Your task to perform on an android device: Clear the cart on target.com. Search for logitech g910 on target.com, select the first entry, and add it to the cart. Image 0: 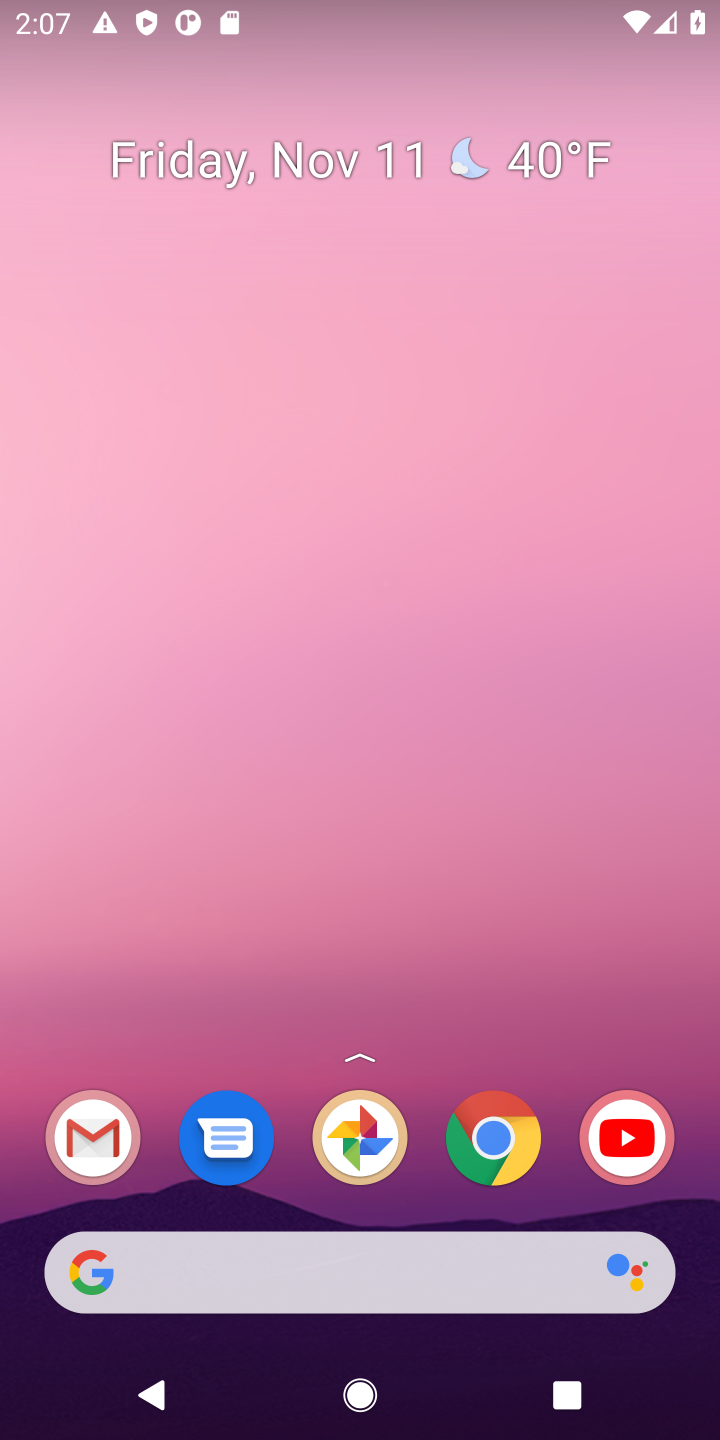
Step 0: click (497, 1122)
Your task to perform on an android device: Clear the cart on target.com. Search for logitech g910 on target.com, select the first entry, and add it to the cart. Image 1: 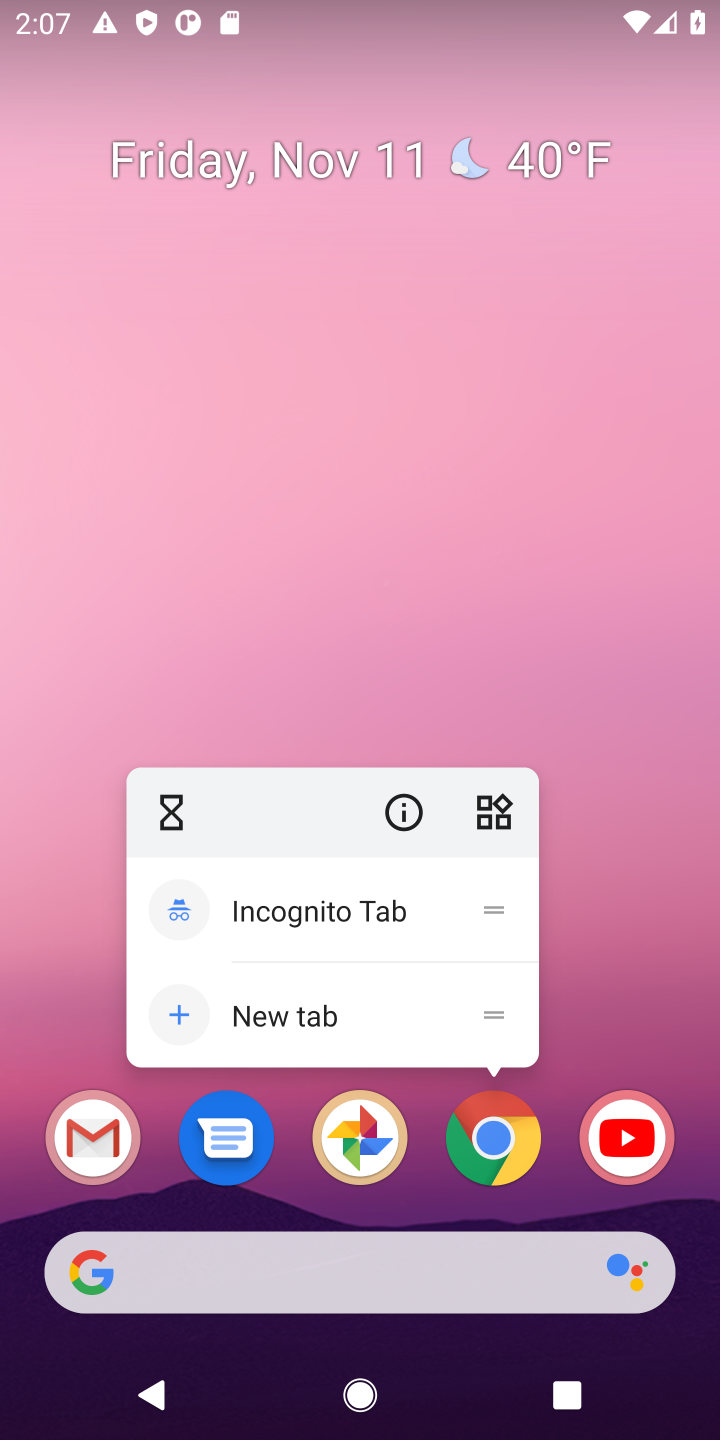
Step 1: click (497, 1122)
Your task to perform on an android device: Clear the cart on target.com. Search for logitech g910 on target.com, select the first entry, and add it to the cart. Image 2: 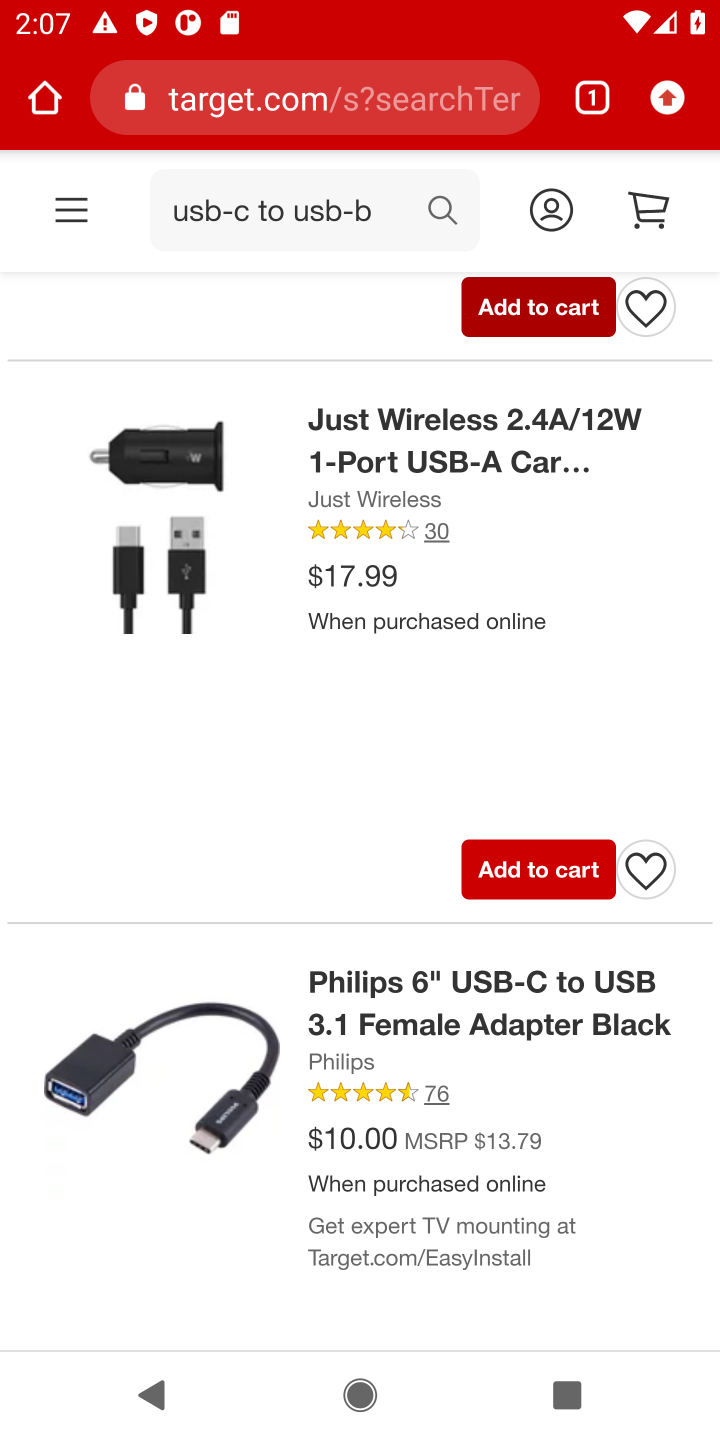
Step 2: click (436, 212)
Your task to perform on an android device: Clear the cart on target.com. Search for logitech g910 on target.com, select the first entry, and add it to the cart. Image 3: 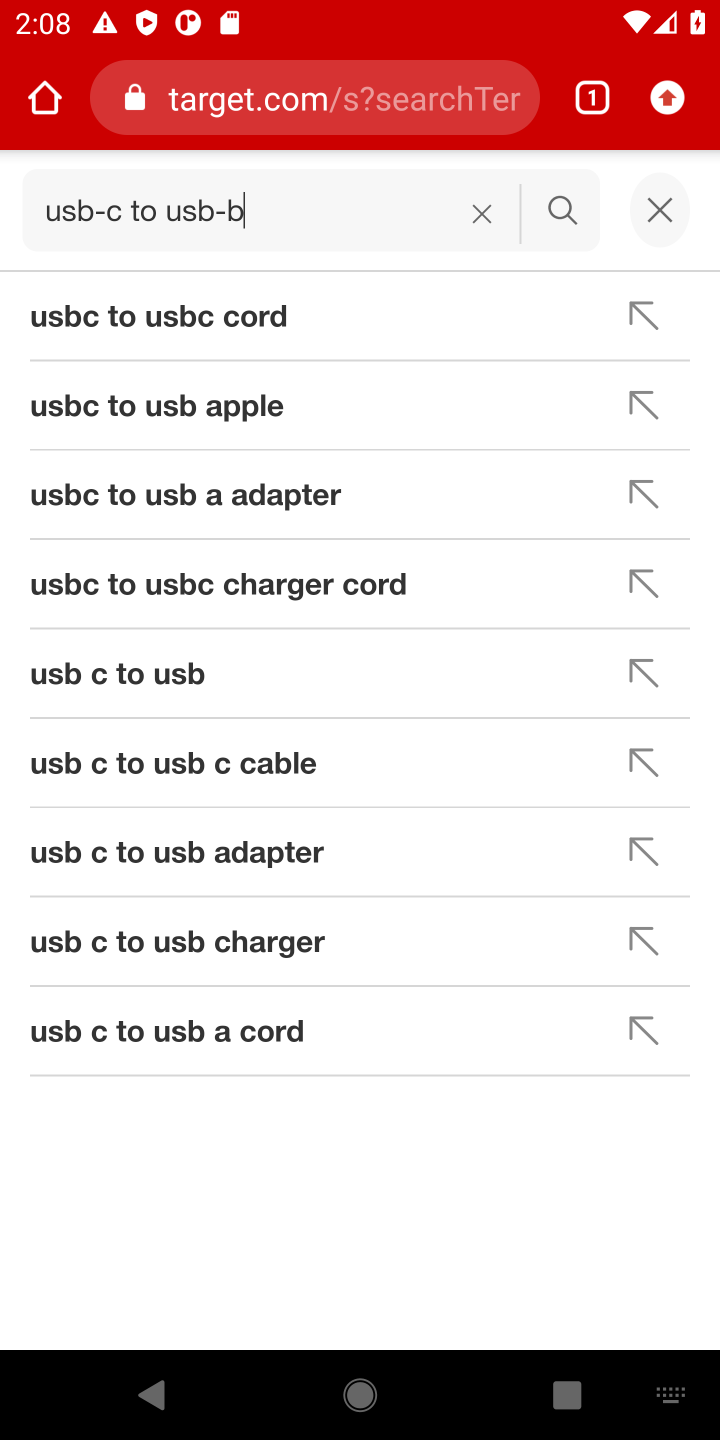
Step 3: click (487, 218)
Your task to perform on an android device: Clear the cart on target.com. Search for logitech g910 on target.com, select the first entry, and add it to the cart. Image 4: 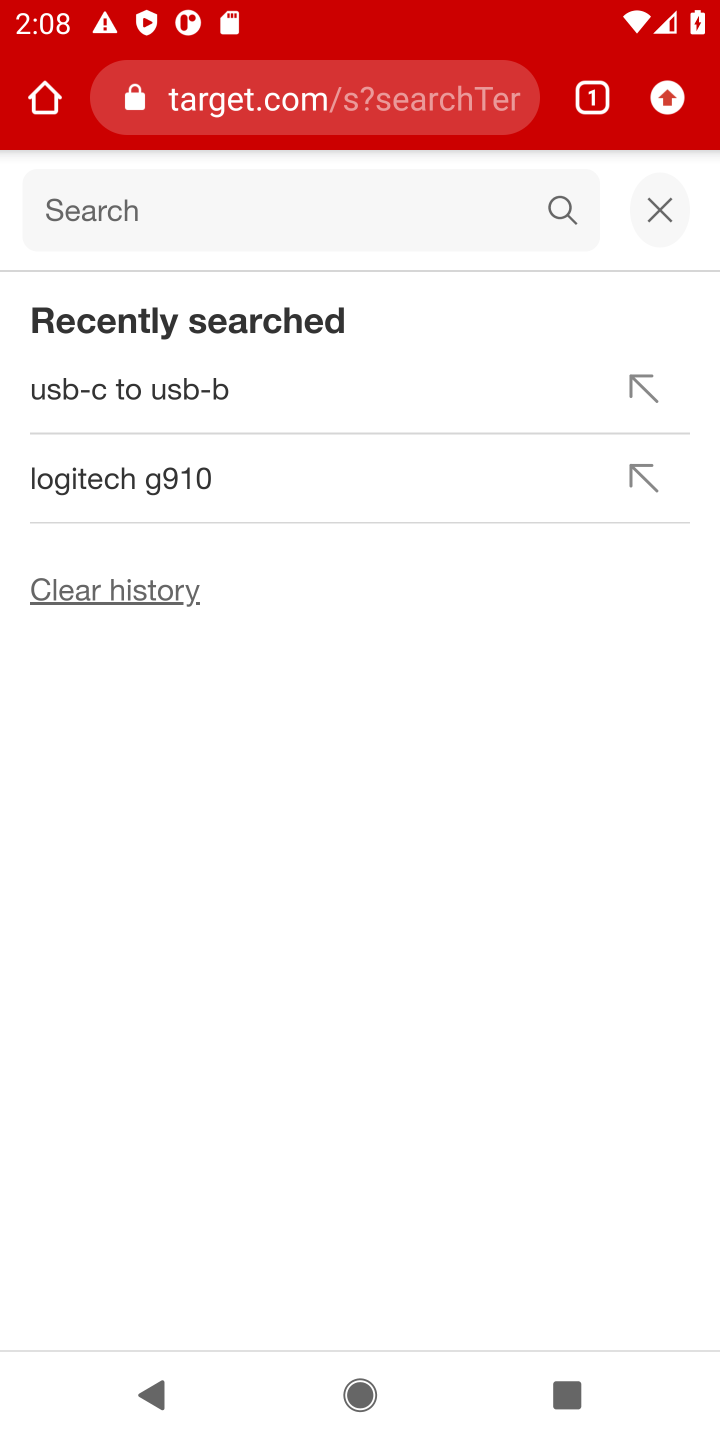
Step 4: press enter
Your task to perform on an android device: Clear the cart on target.com. Search for logitech g910 on target.com, select the first entry, and add it to the cart. Image 5: 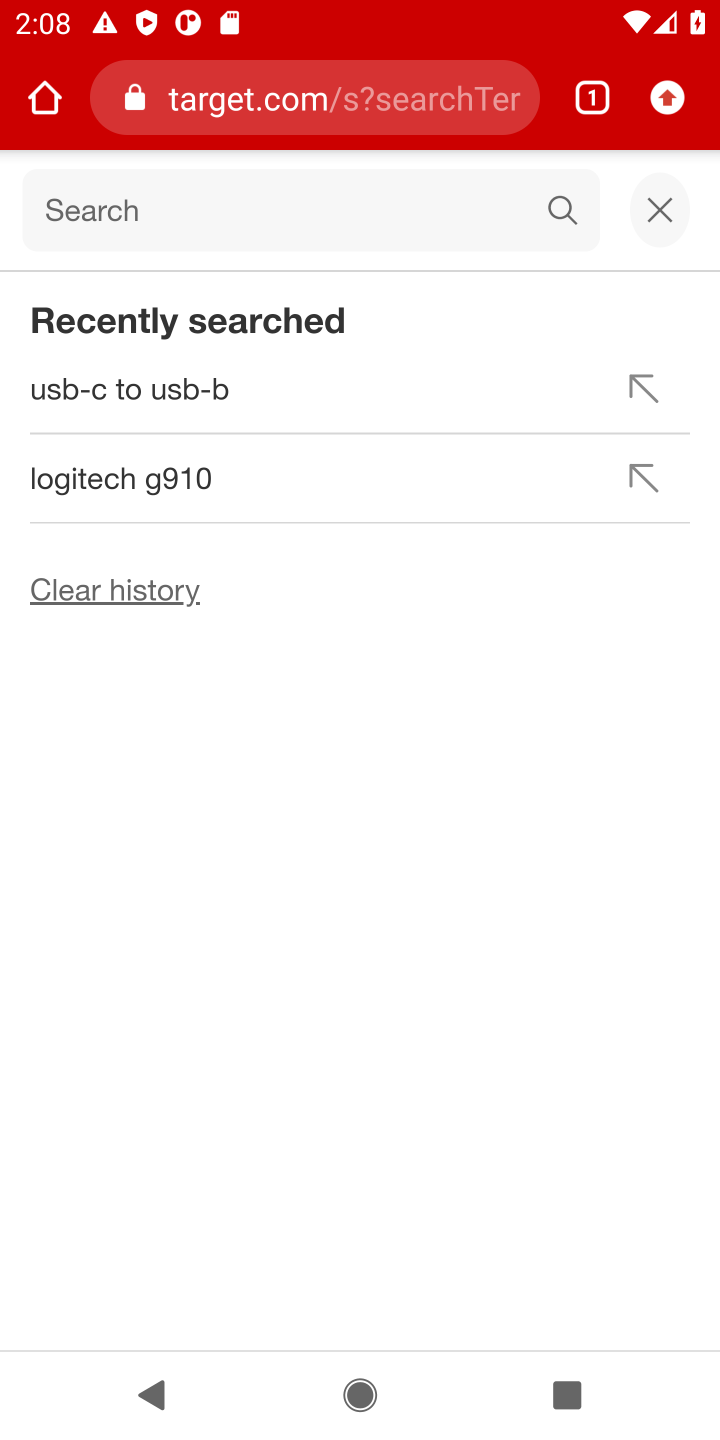
Step 5: type "logitech g910"
Your task to perform on an android device: Clear the cart on target.com. Search for logitech g910 on target.com, select the first entry, and add it to the cart. Image 6: 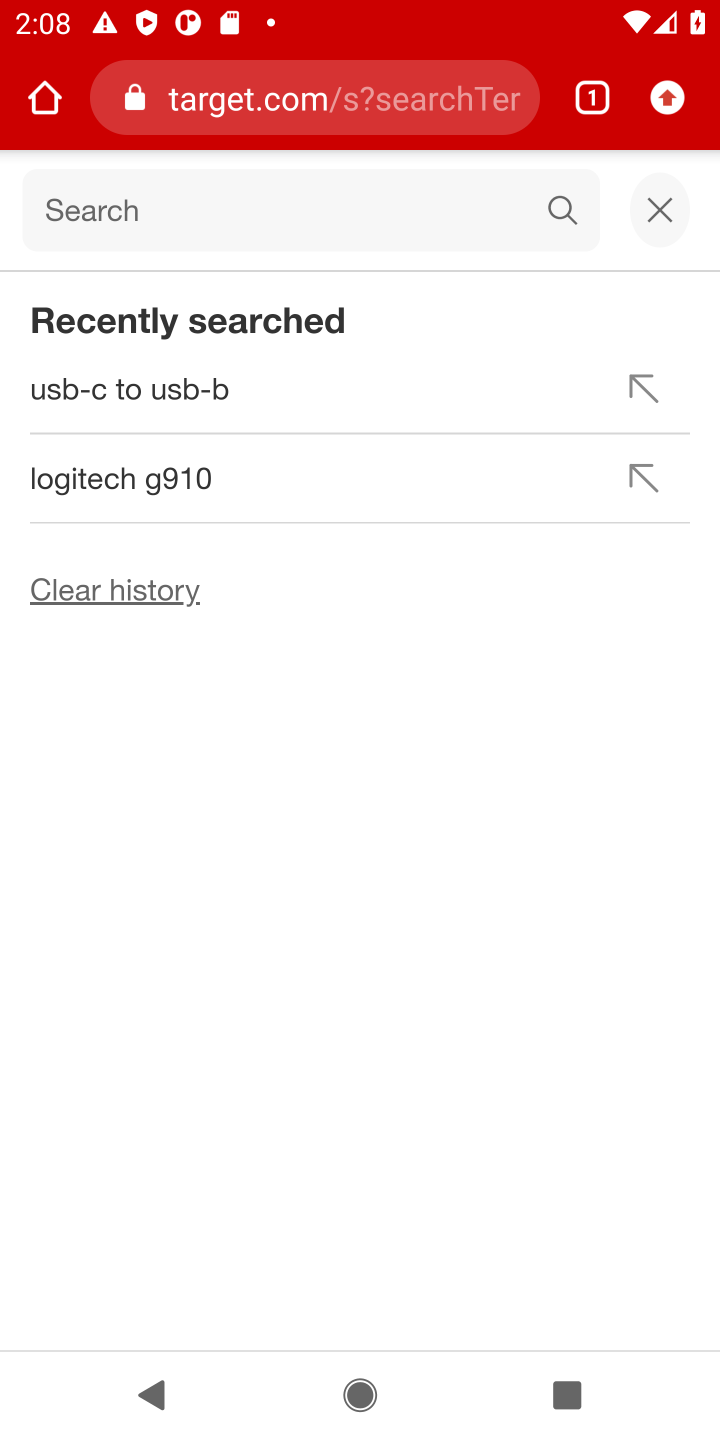
Step 6: type "logitech g910"
Your task to perform on an android device: Clear the cart on target.com. Search for logitech g910 on target.com, select the first entry, and add it to the cart. Image 7: 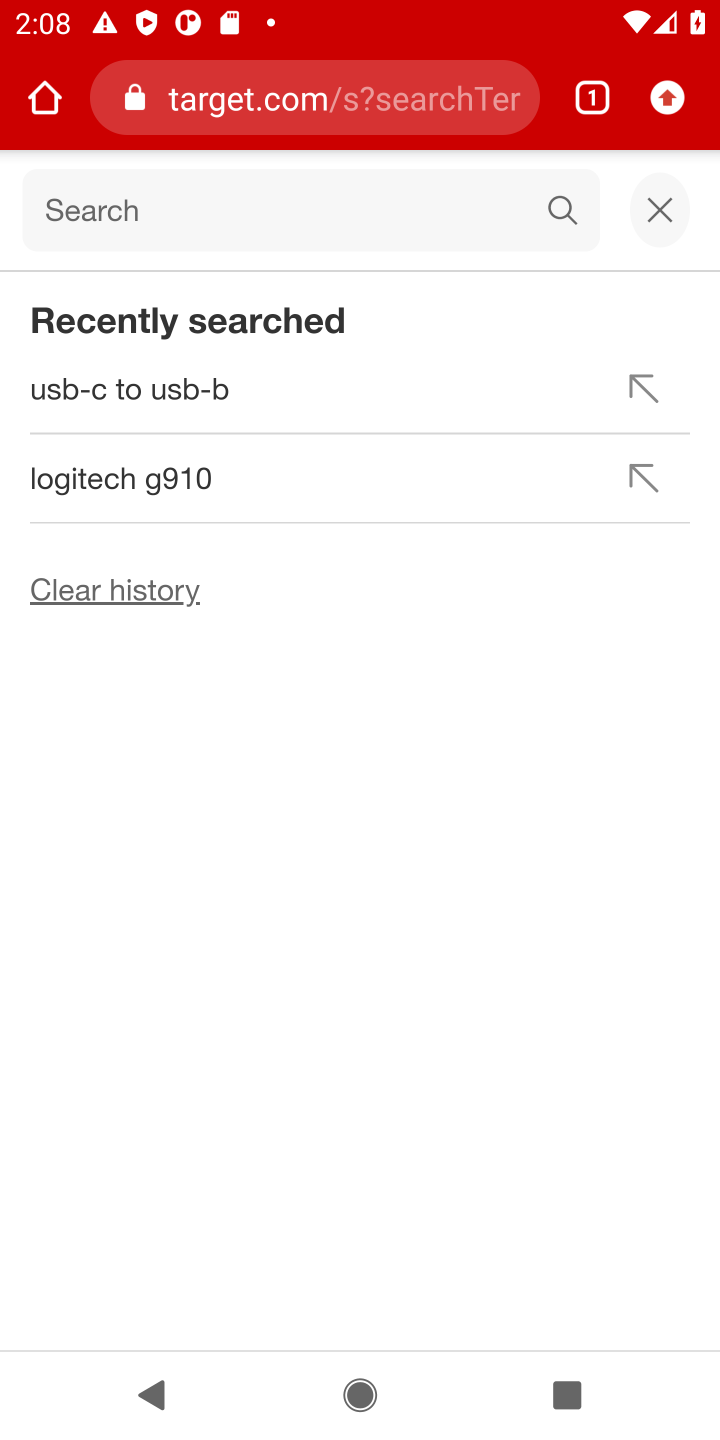
Step 7: click (546, 196)
Your task to perform on an android device: Clear the cart on target.com. Search for logitech g910 on target.com, select the first entry, and add it to the cart. Image 8: 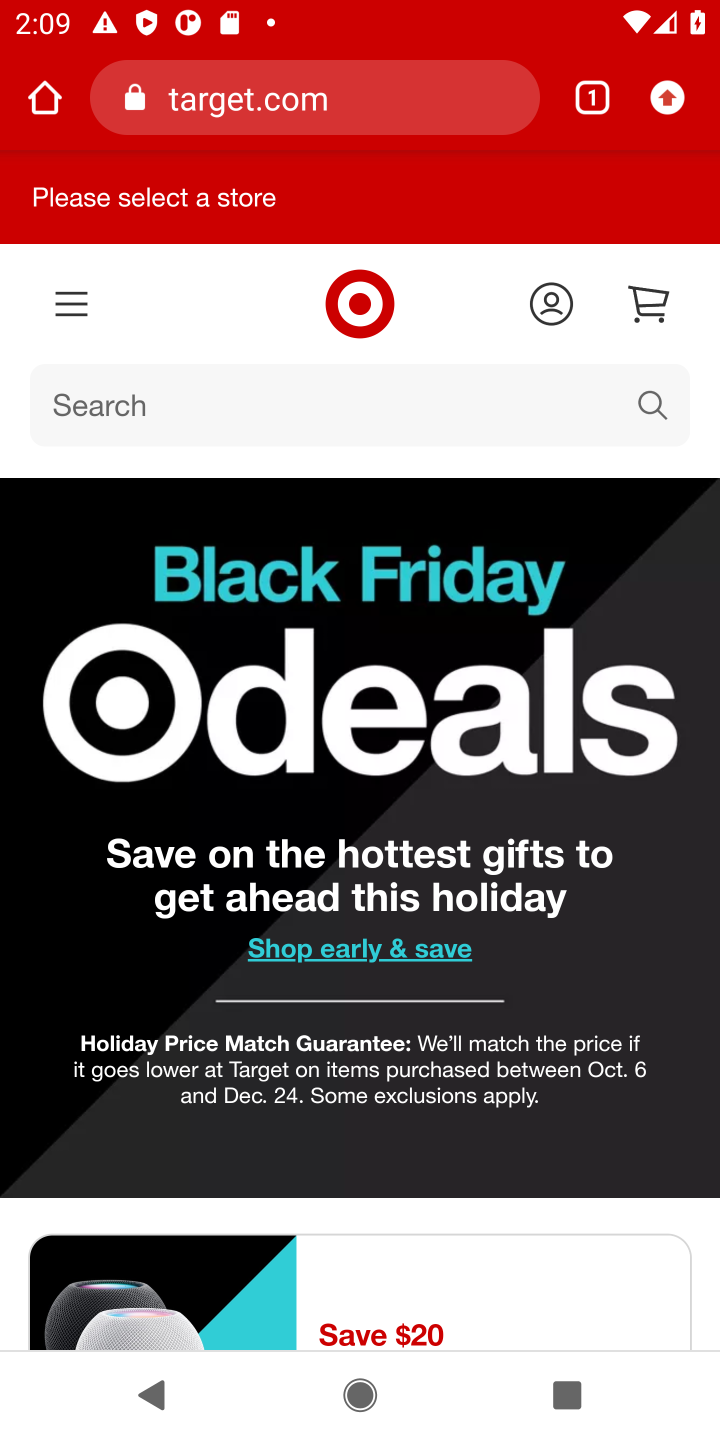
Step 8: click (657, 390)
Your task to perform on an android device: Clear the cart on target.com. Search for logitech g910 on target.com, select the first entry, and add it to the cart. Image 9: 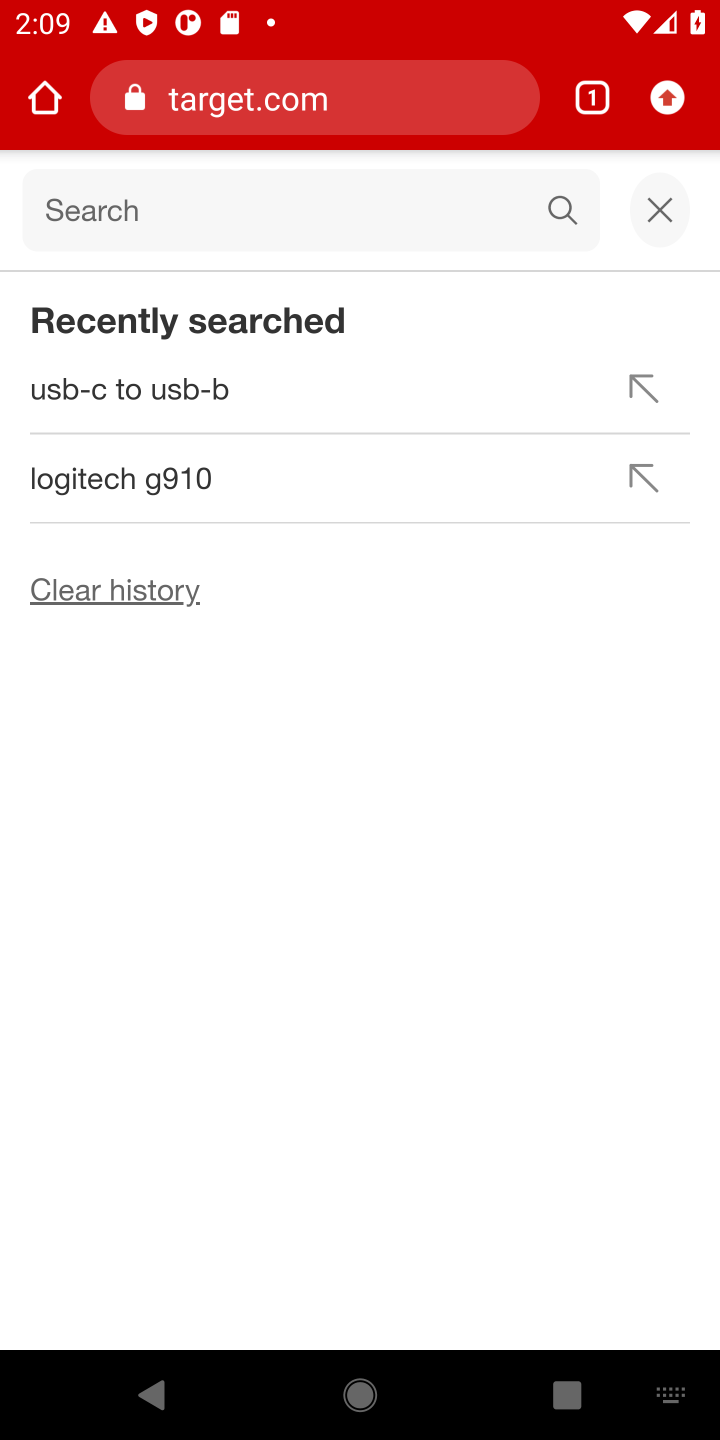
Step 9: press enter
Your task to perform on an android device: Clear the cart on target.com. Search for logitech g910 on target.com, select the first entry, and add it to the cart. Image 10: 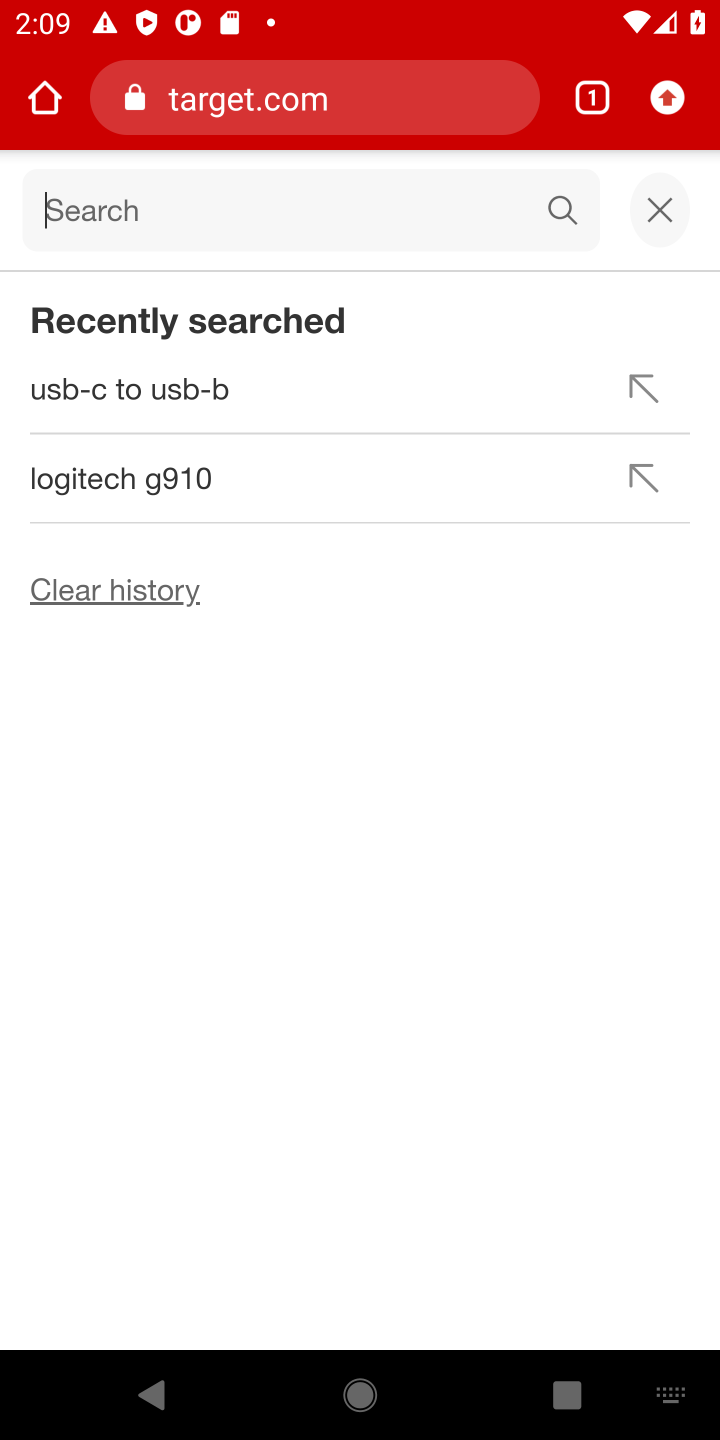
Step 10: type "logitech g910"
Your task to perform on an android device: Clear the cart on target.com. Search for logitech g910 on target.com, select the first entry, and add it to the cart. Image 11: 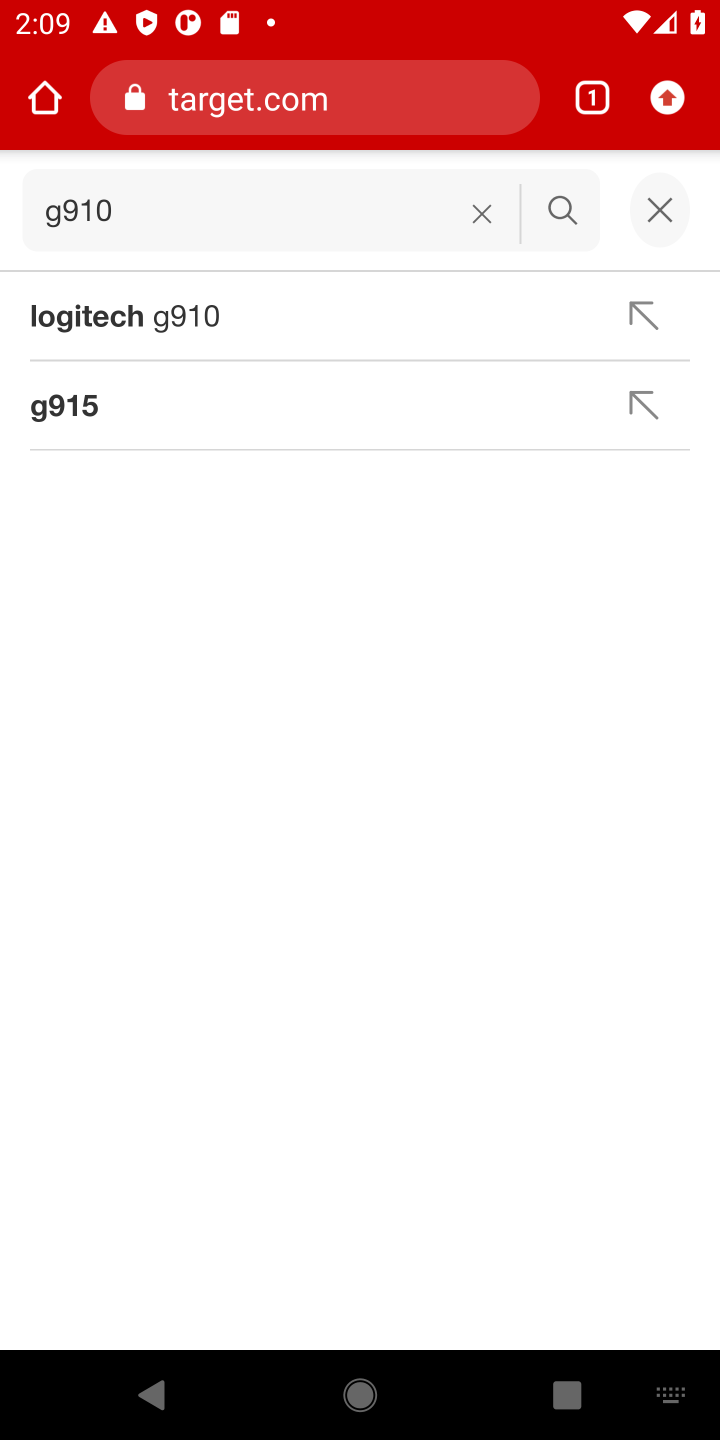
Step 11: click (153, 310)
Your task to perform on an android device: Clear the cart on target.com. Search for logitech g910 on target.com, select the first entry, and add it to the cart. Image 12: 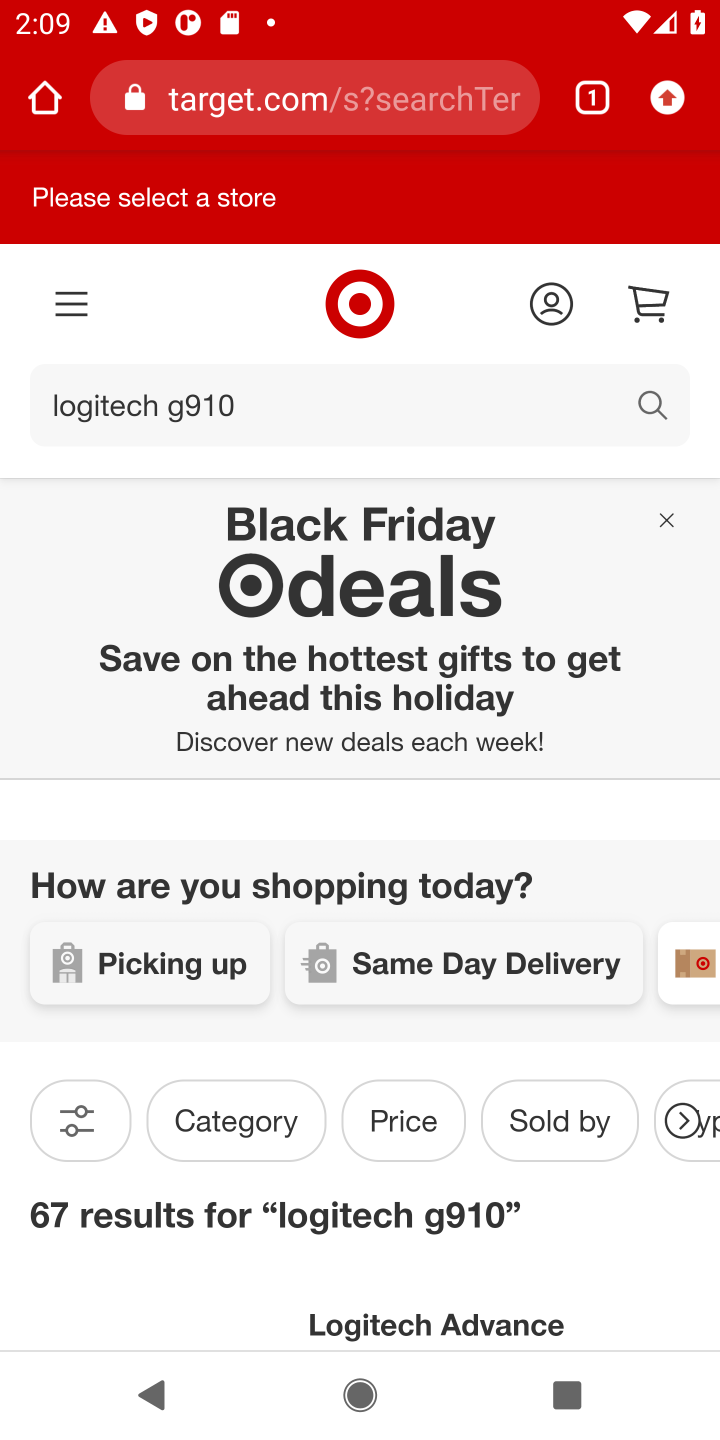
Step 12: drag from (414, 1011) to (324, 331)
Your task to perform on an android device: Clear the cart on target.com. Search for logitech g910 on target.com, select the first entry, and add it to the cart. Image 13: 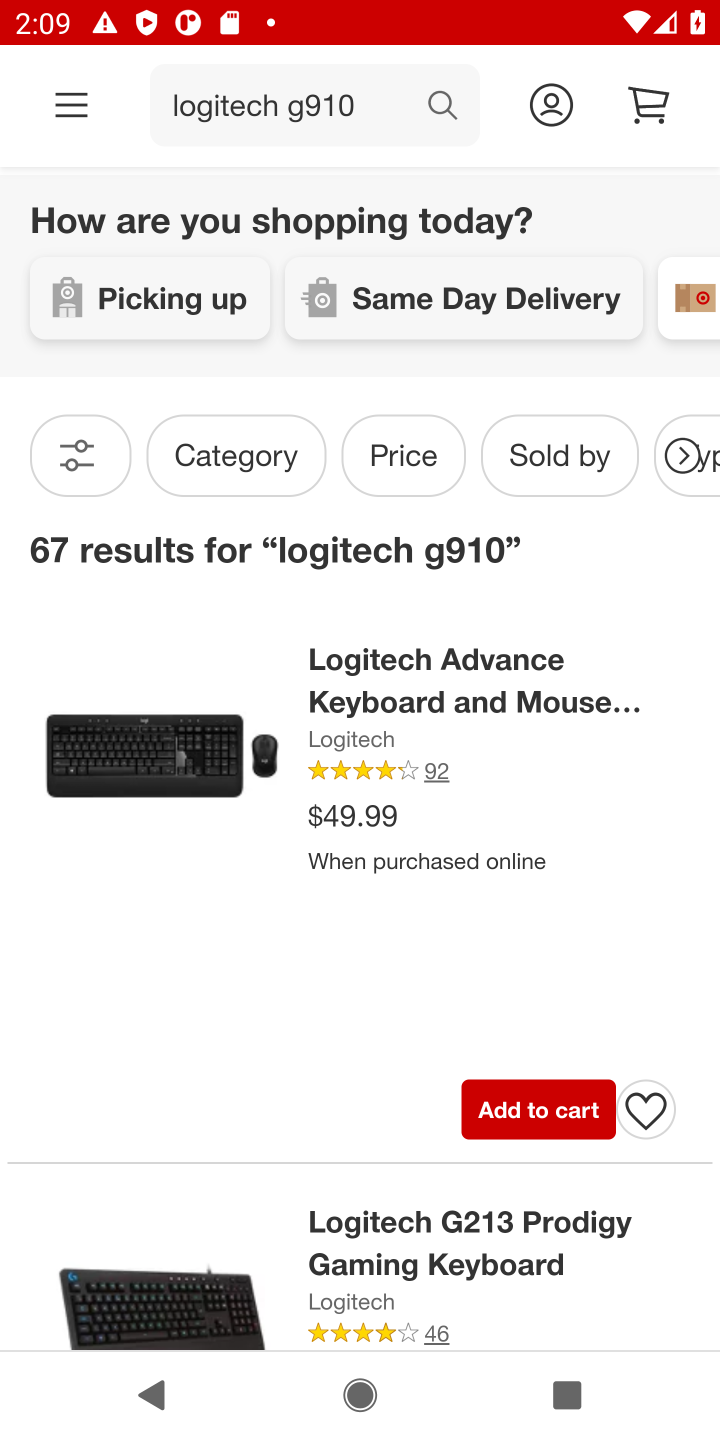
Step 13: drag from (649, 1165) to (416, 326)
Your task to perform on an android device: Clear the cart on target.com. Search for logitech g910 on target.com, select the first entry, and add it to the cart. Image 14: 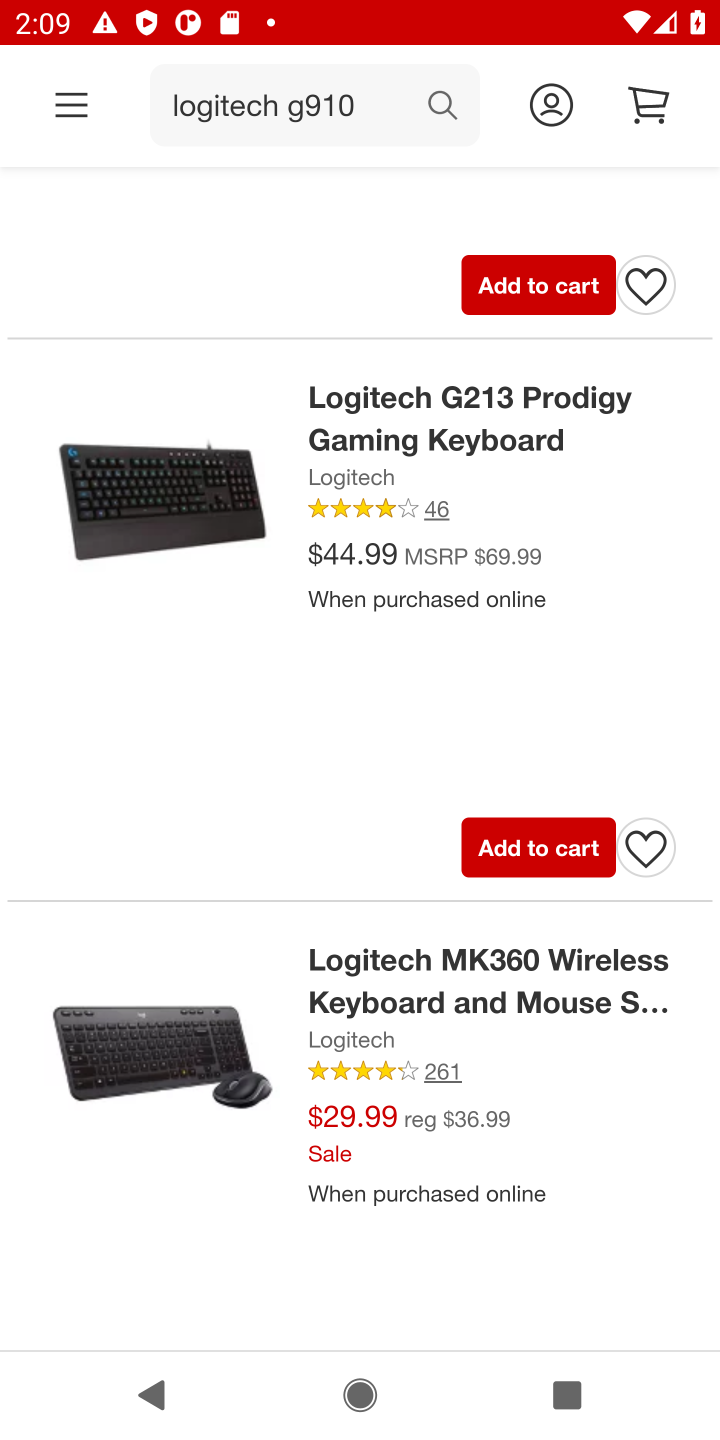
Step 14: drag from (263, 1091) to (268, 351)
Your task to perform on an android device: Clear the cart on target.com. Search for logitech g910 on target.com, select the first entry, and add it to the cart. Image 15: 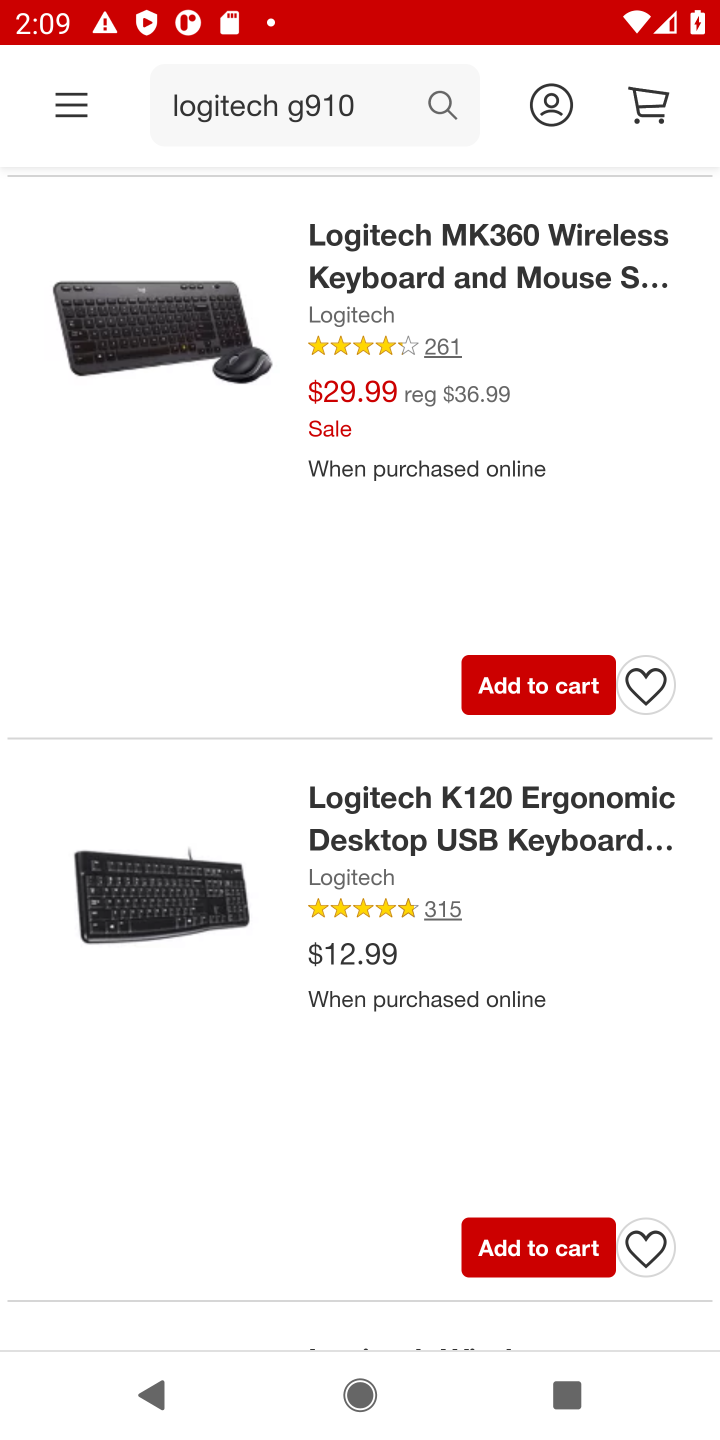
Step 15: drag from (606, 992) to (504, 240)
Your task to perform on an android device: Clear the cart on target.com. Search for logitech g910 on target.com, select the first entry, and add it to the cart. Image 16: 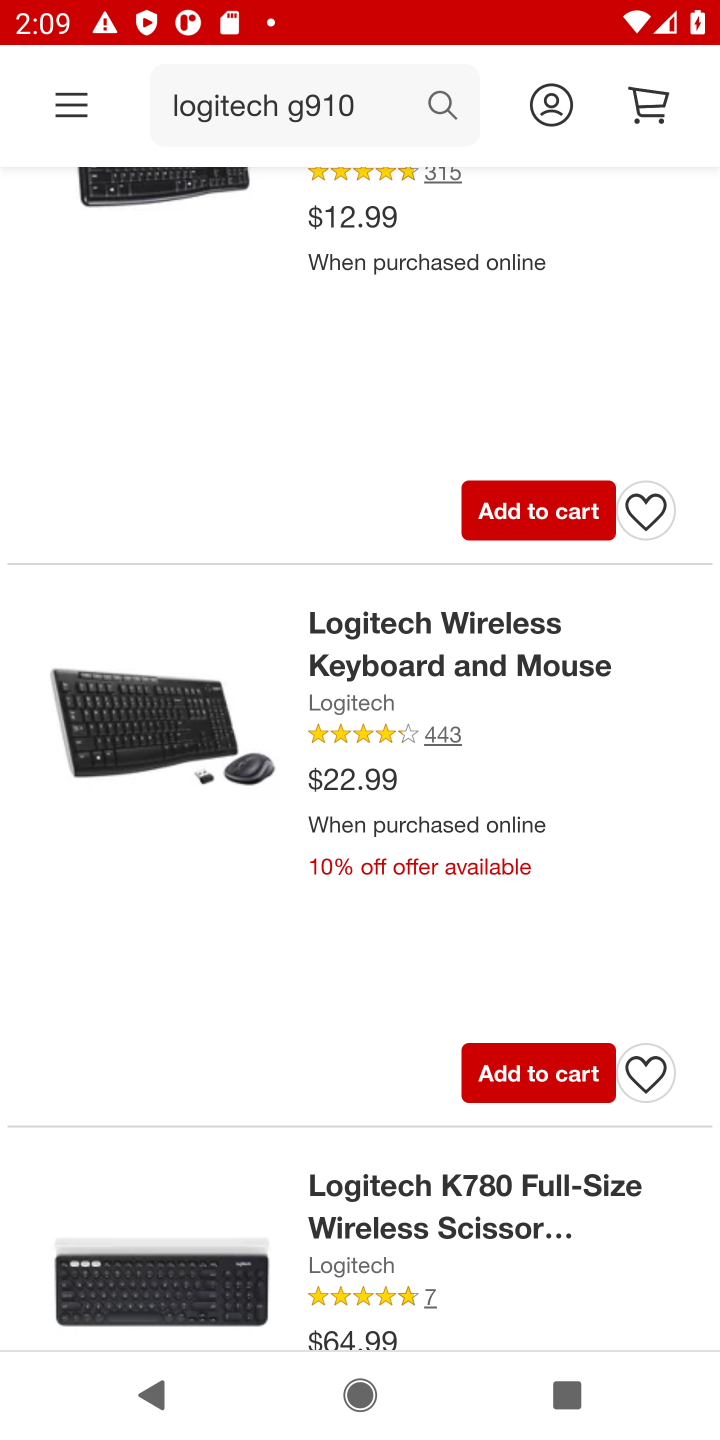
Step 16: drag from (438, 1165) to (529, 768)
Your task to perform on an android device: Clear the cart on target.com. Search for logitech g910 on target.com, select the first entry, and add it to the cart. Image 17: 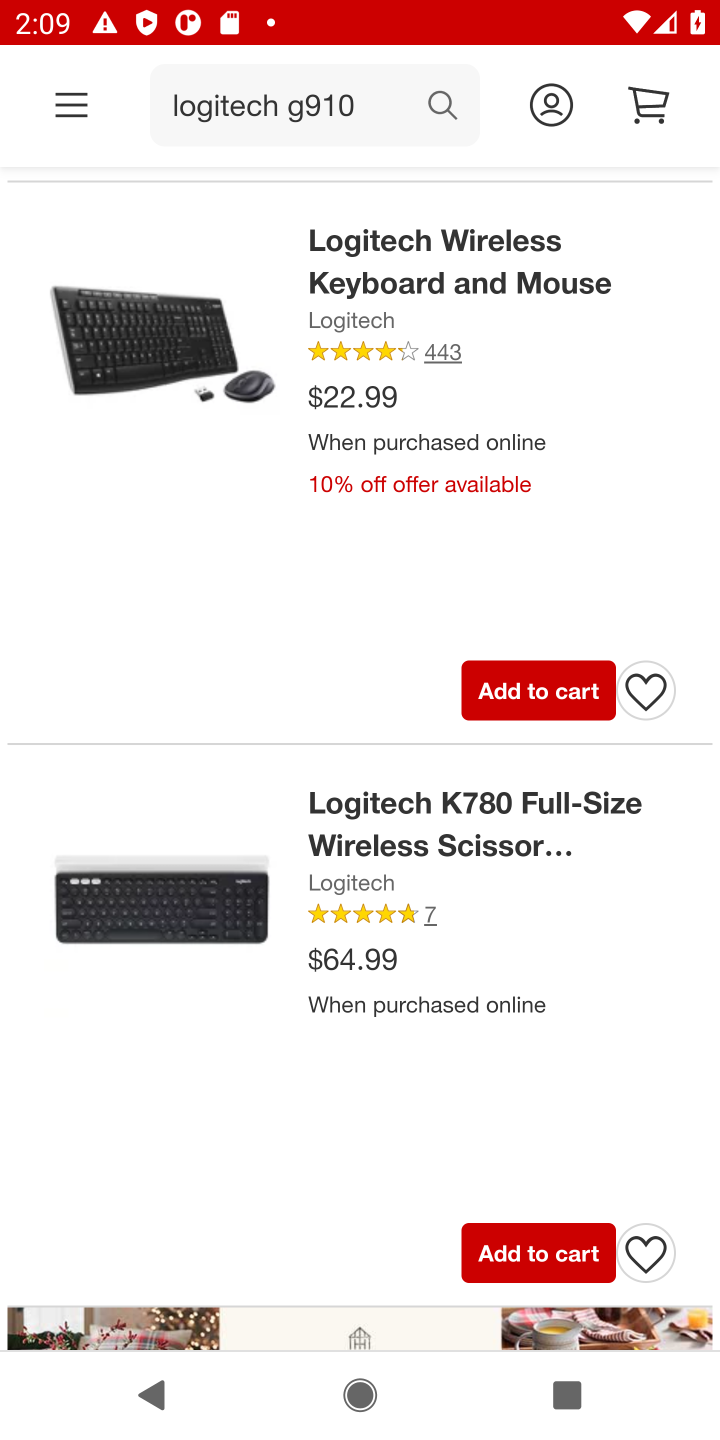
Step 17: drag from (439, 934) to (459, 352)
Your task to perform on an android device: Clear the cart on target.com. Search for logitech g910 on target.com, select the first entry, and add it to the cart. Image 18: 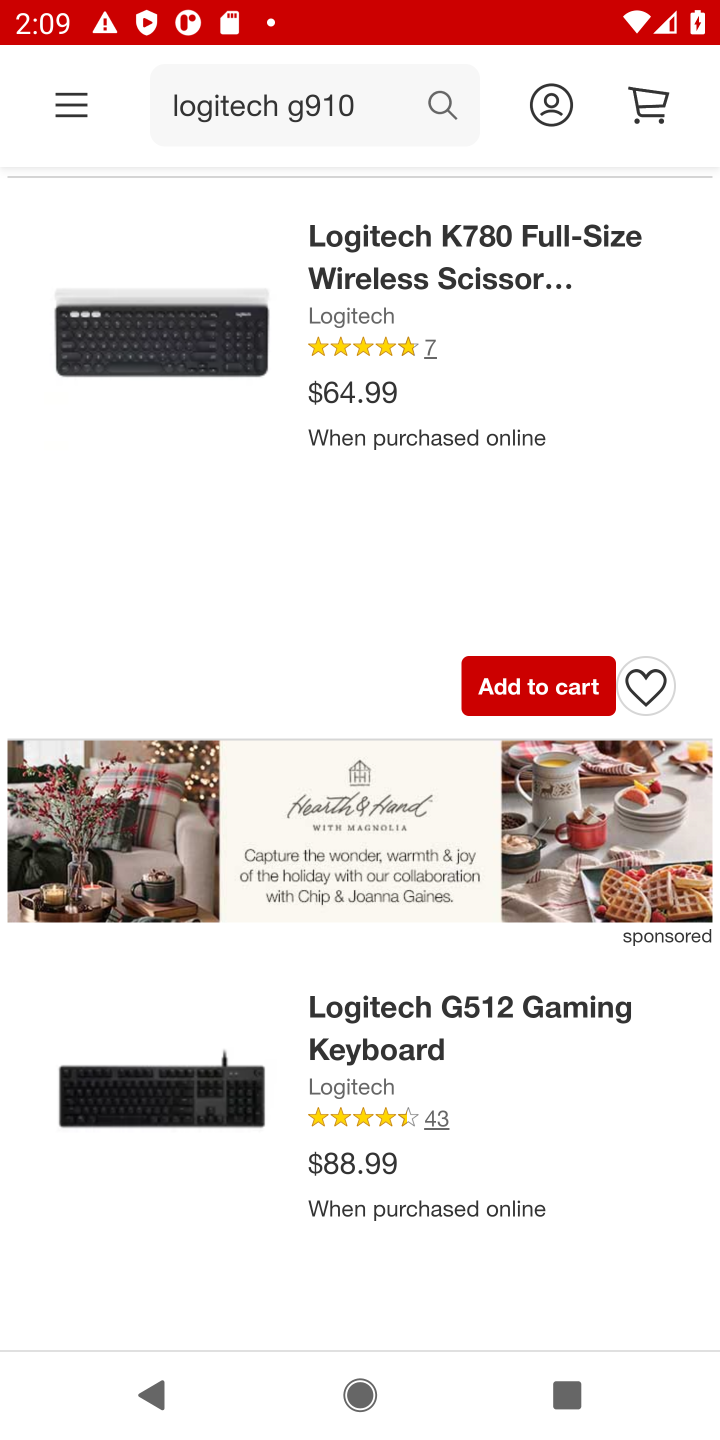
Step 18: drag from (531, 1104) to (500, 548)
Your task to perform on an android device: Clear the cart on target.com. Search for logitech g910 on target.com, select the first entry, and add it to the cart. Image 19: 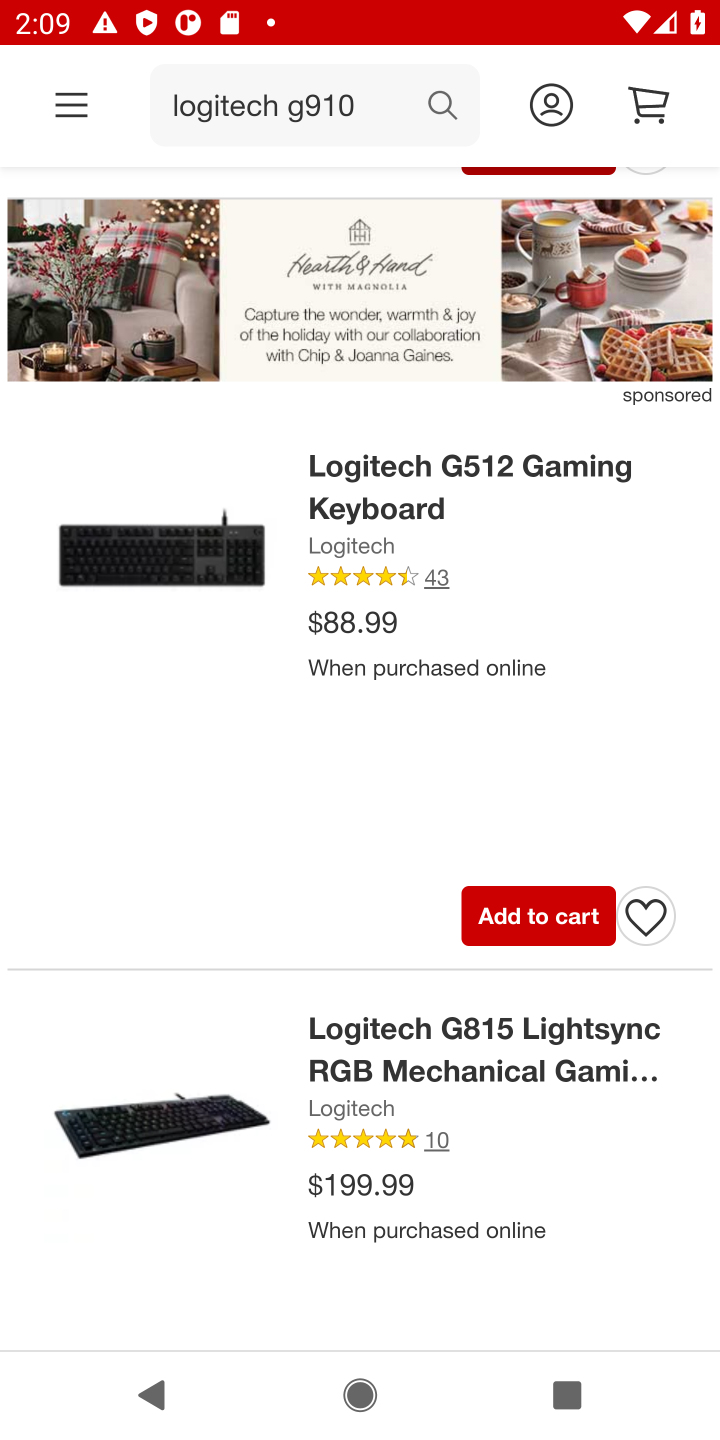
Step 19: drag from (513, 1178) to (520, 438)
Your task to perform on an android device: Clear the cart on target.com. Search for logitech g910 on target.com, select the first entry, and add it to the cart. Image 20: 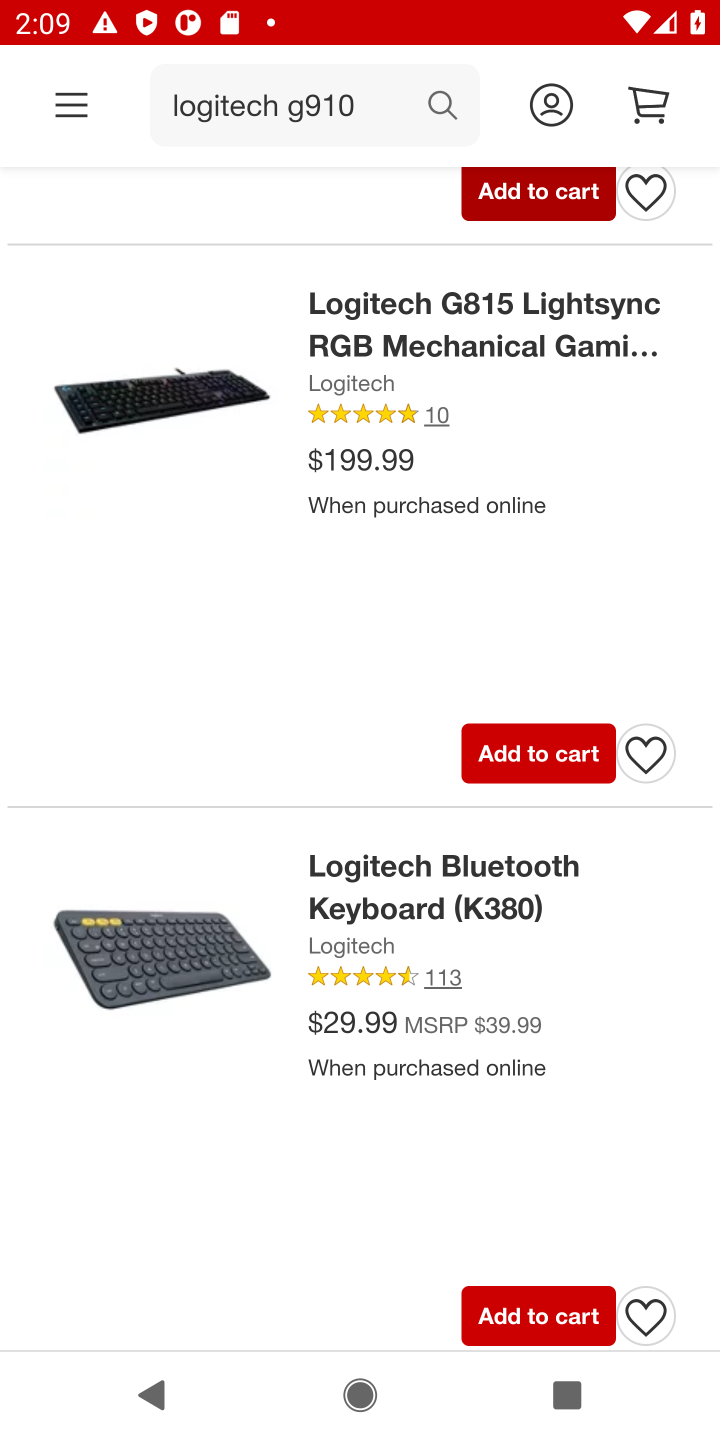
Step 20: drag from (565, 1094) to (510, 292)
Your task to perform on an android device: Clear the cart on target.com. Search for logitech g910 on target.com, select the first entry, and add it to the cart. Image 21: 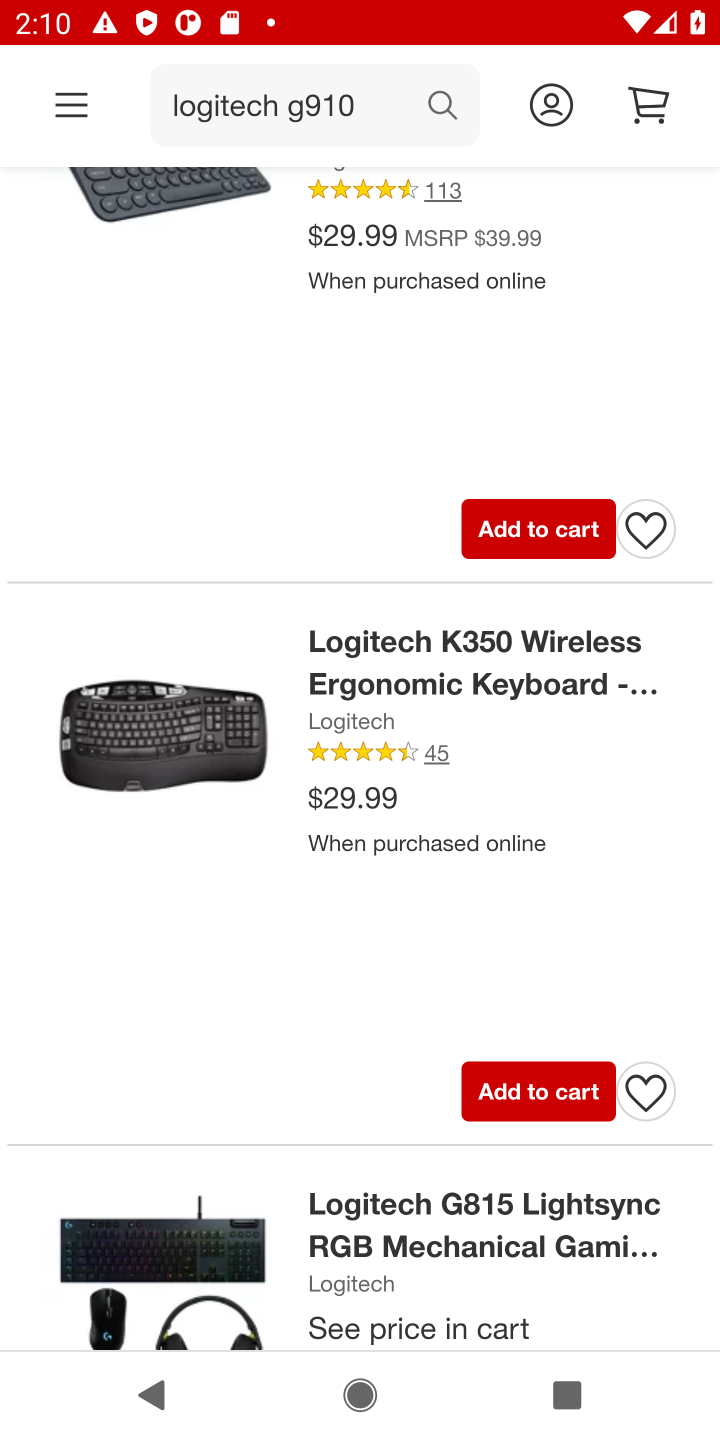
Step 21: drag from (562, 1059) to (517, 569)
Your task to perform on an android device: Clear the cart on target.com. Search for logitech g910 on target.com, select the first entry, and add it to the cart. Image 22: 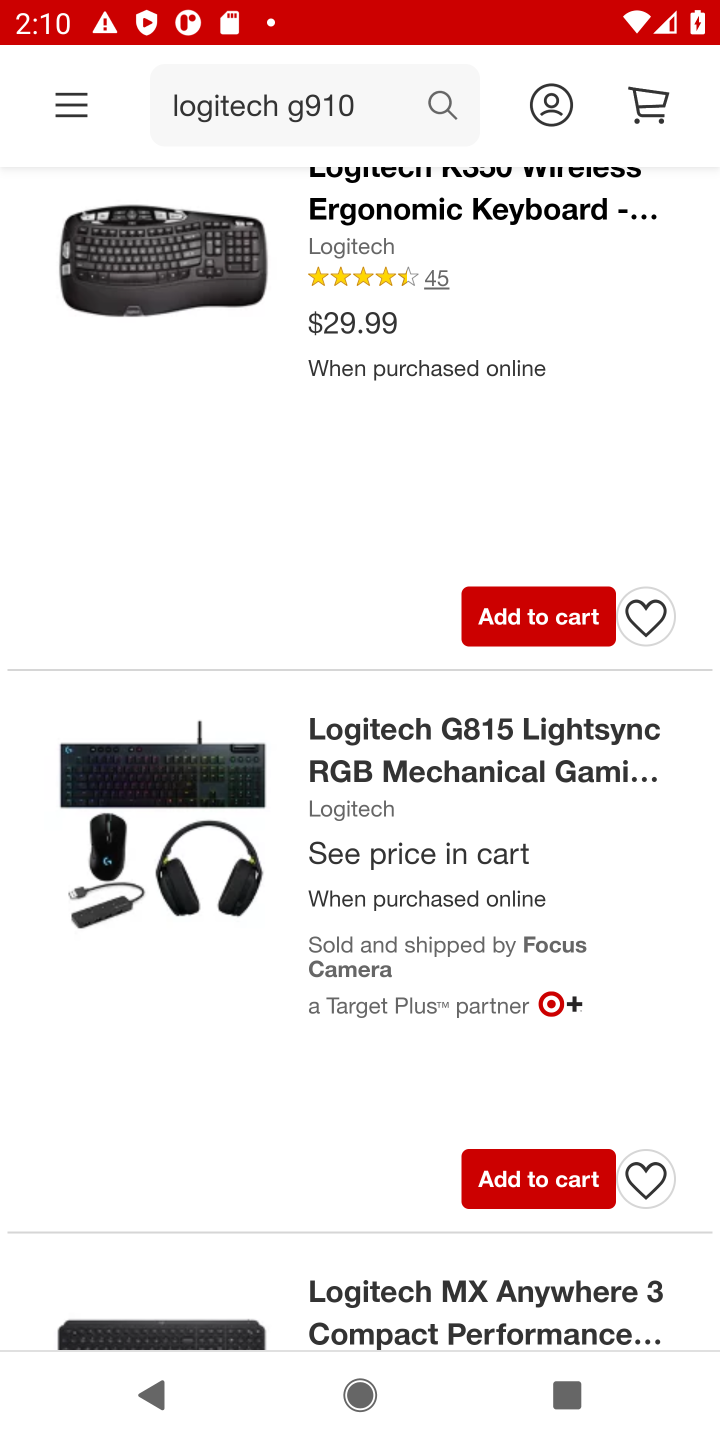
Step 22: drag from (575, 1230) to (613, 543)
Your task to perform on an android device: Clear the cart on target.com. Search for logitech g910 on target.com, select the first entry, and add it to the cart. Image 23: 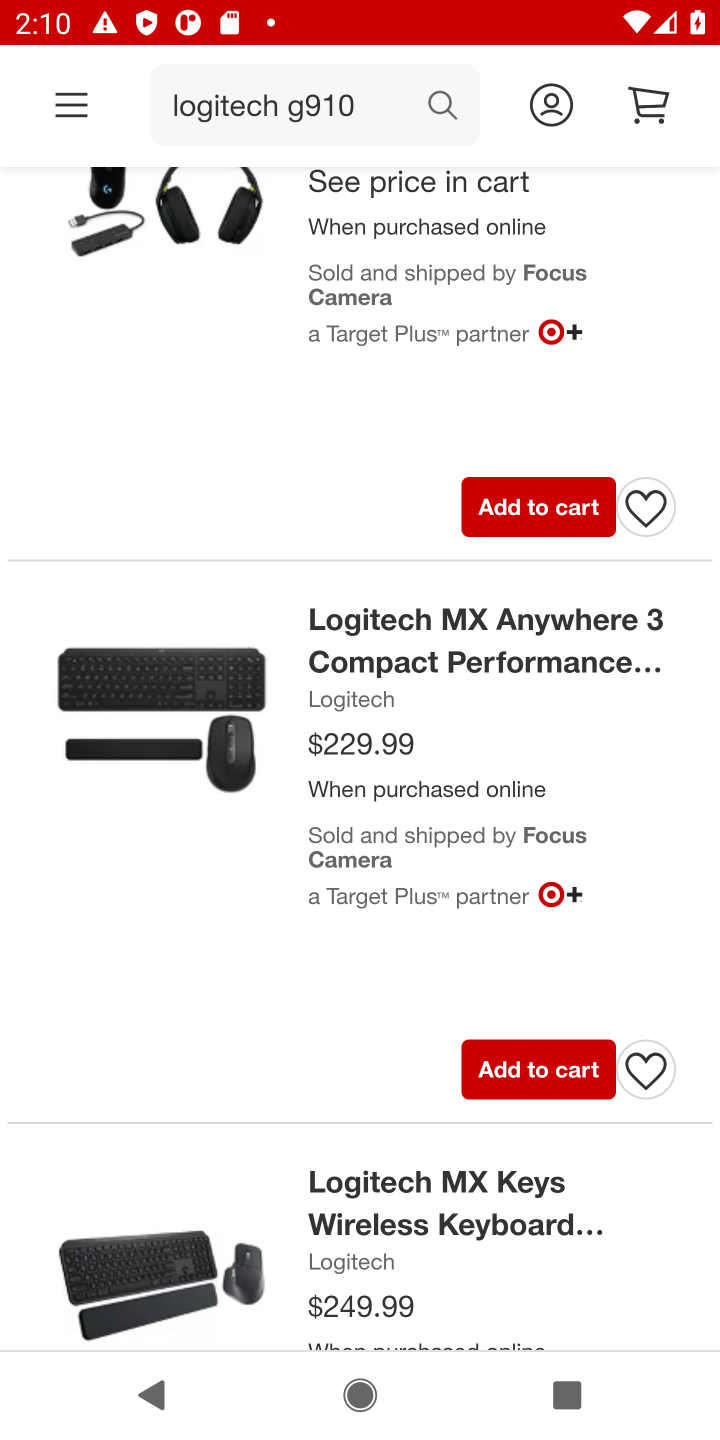
Step 23: drag from (517, 1090) to (463, 585)
Your task to perform on an android device: Clear the cart on target.com. Search for logitech g910 on target.com, select the first entry, and add it to the cart. Image 24: 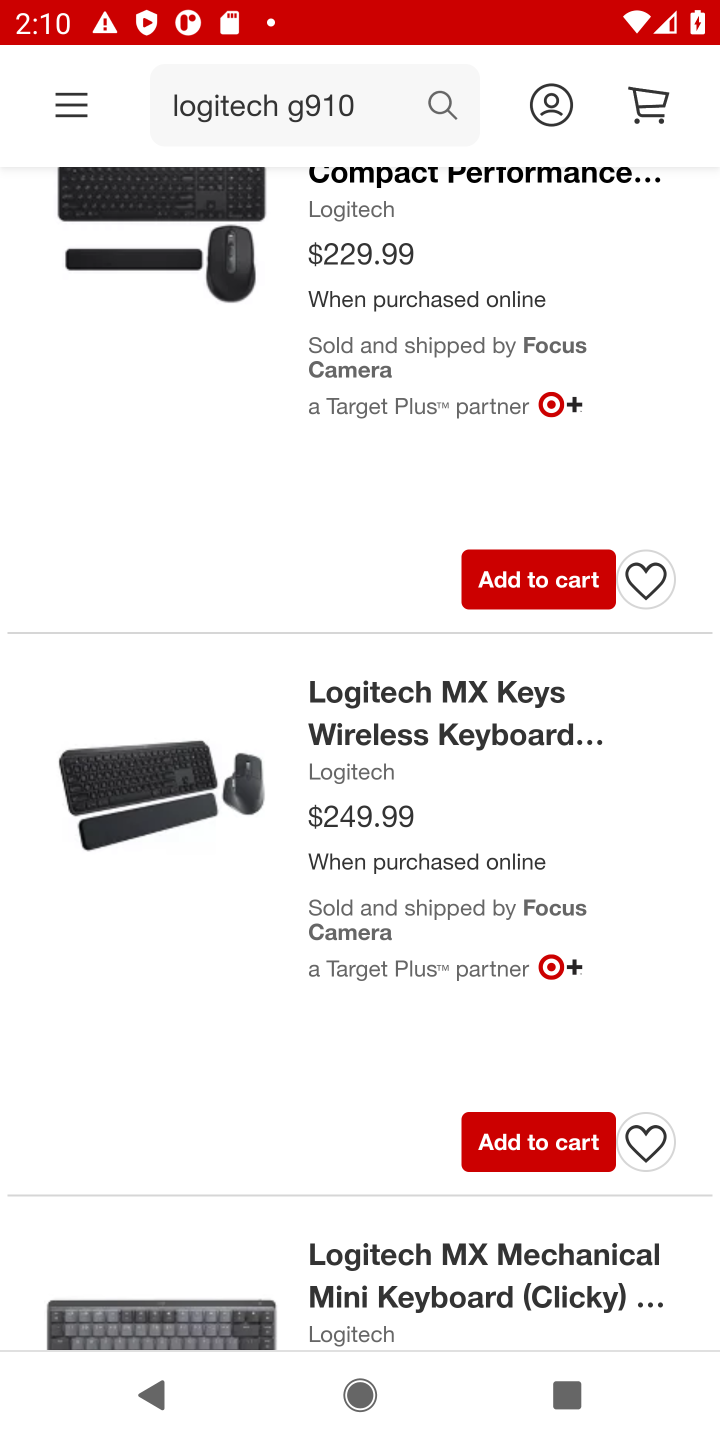
Step 24: click (472, 655)
Your task to perform on an android device: Clear the cart on target.com. Search for logitech g910 on target.com, select the first entry, and add it to the cart. Image 25: 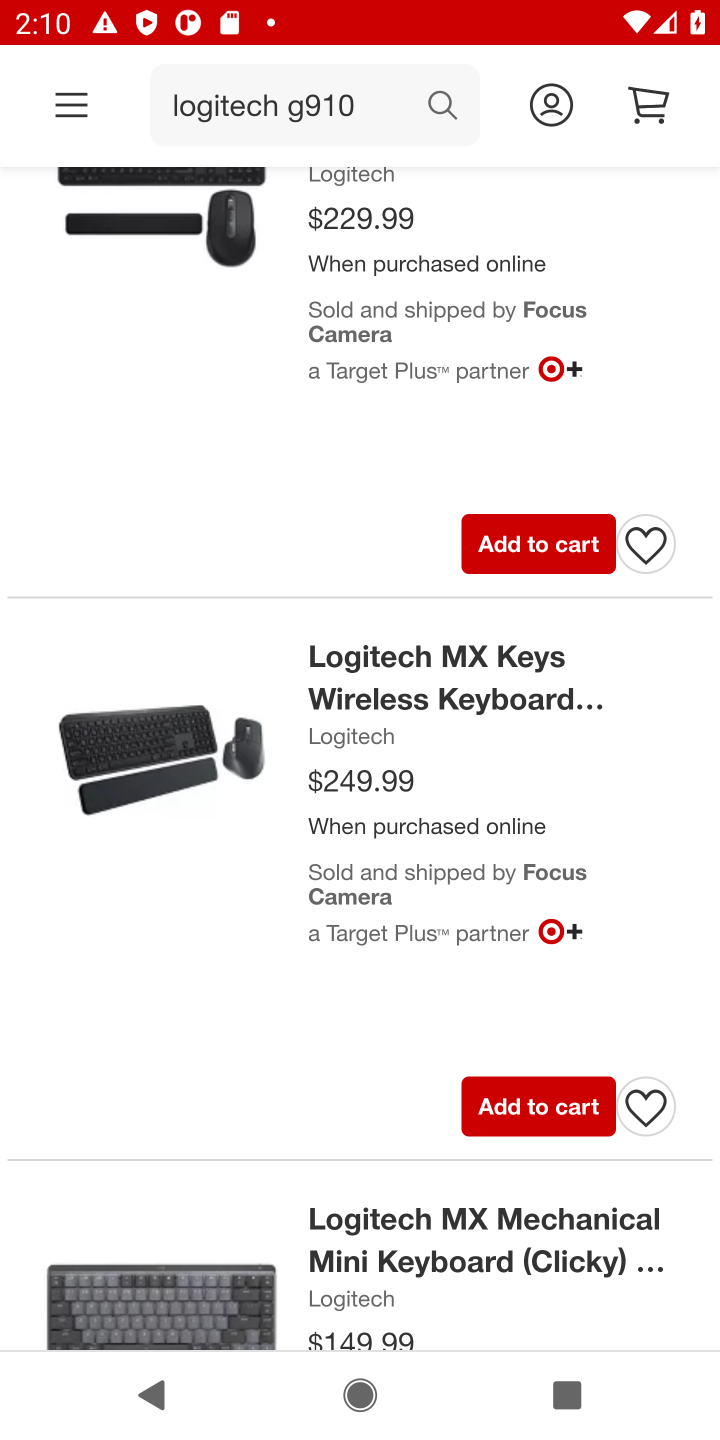
Step 25: task complete